Your task to perform on an android device: Check the news Image 0: 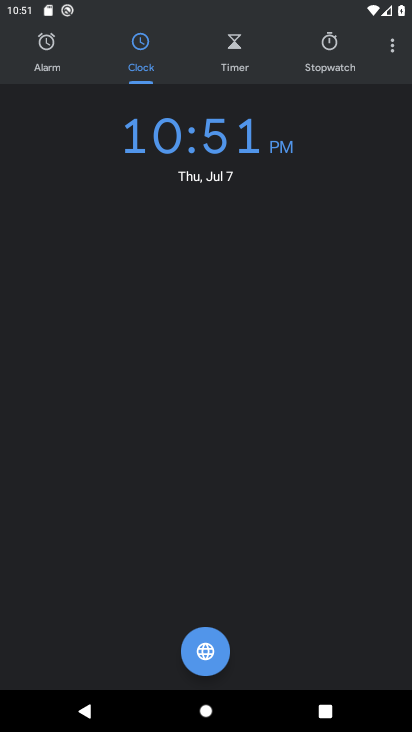
Step 0: press home button
Your task to perform on an android device: Check the news Image 1: 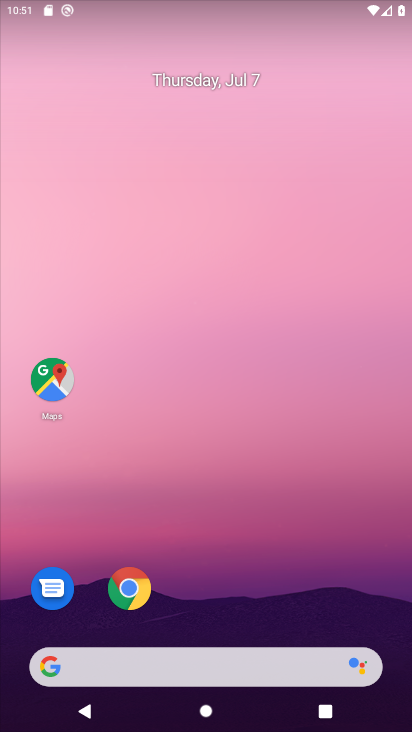
Step 1: click (140, 663)
Your task to perform on an android device: Check the news Image 2: 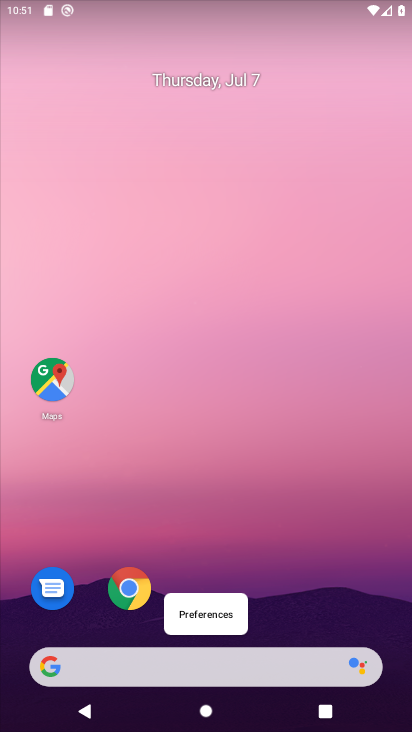
Step 2: click (188, 668)
Your task to perform on an android device: Check the news Image 3: 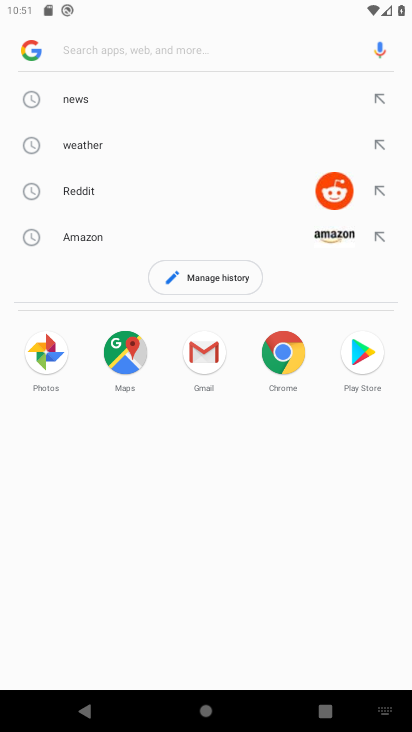
Step 3: click (74, 97)
Your task to perform on an android device: Check the news Image 4: 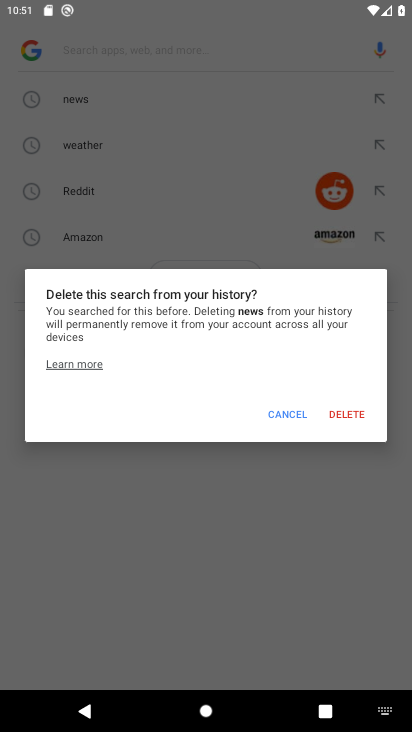
Step 4: click (263, 537)
Your task to perform on an android device: Check the news Image 5: 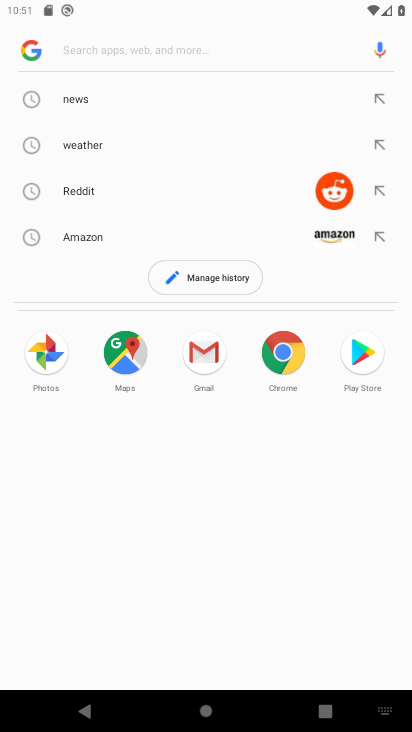
Step 5: click (76, 98)
Your task to perform on an android device: Check the news Image 6: 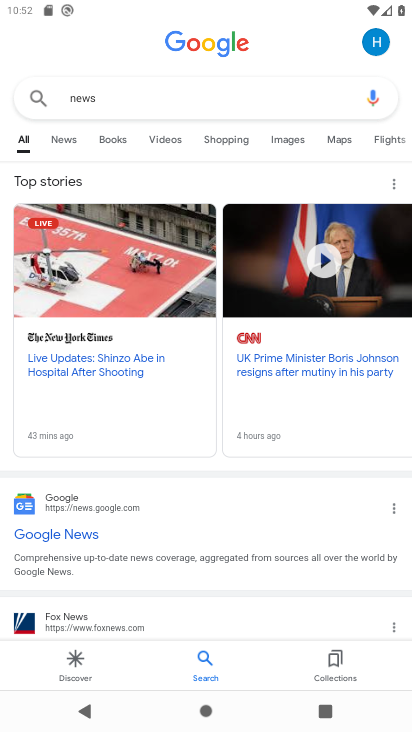
Step 6: task complete